Your task to perform on an android device: uninstall "Messages" Image 0: 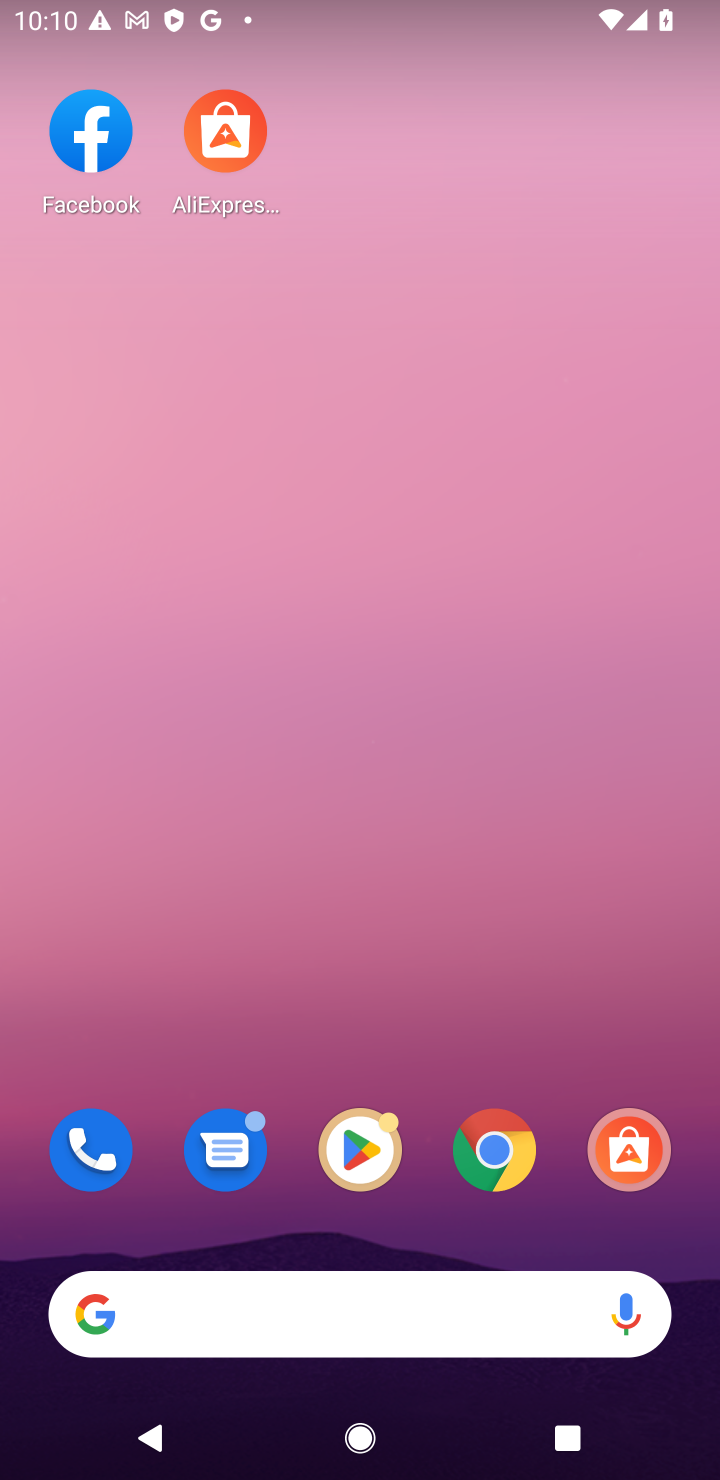
Step 0: click (374, 1146)
Your task to perform on an android device: uninstall "Messages" Image 1: 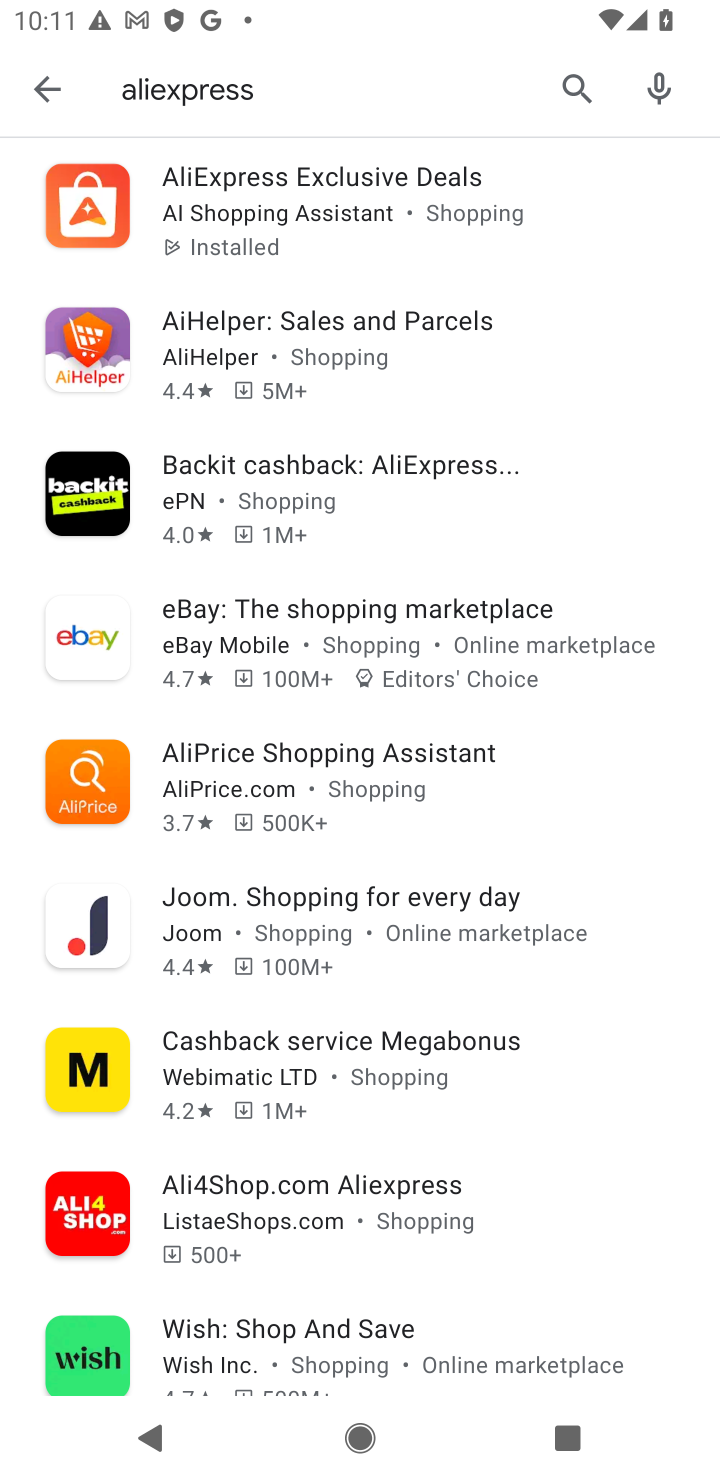
Step 1: click (561, 91)
Your task to perform on an android device: uninstall "Messages" Image 2: 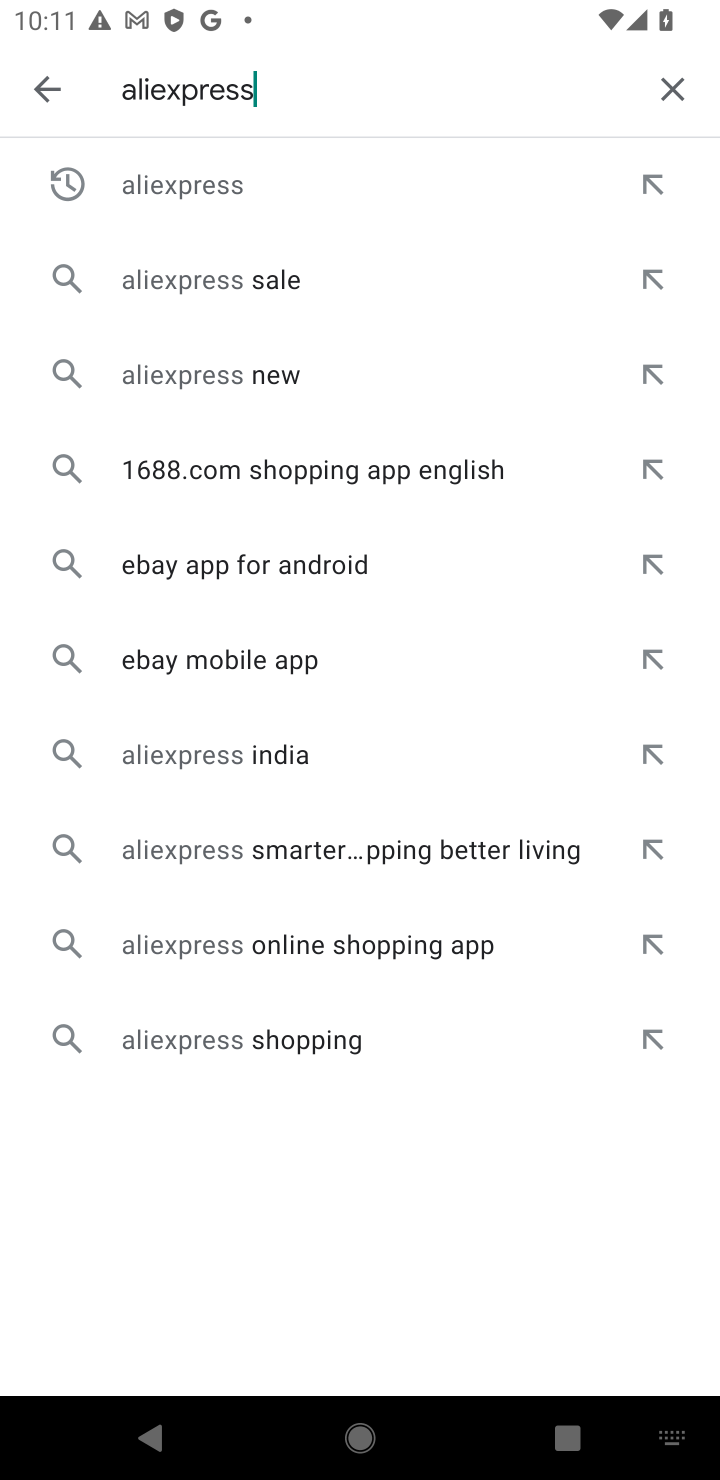
Step 2: click (666, 98)
Your task to perform on an android device: uninstall "Messages" Image 3: 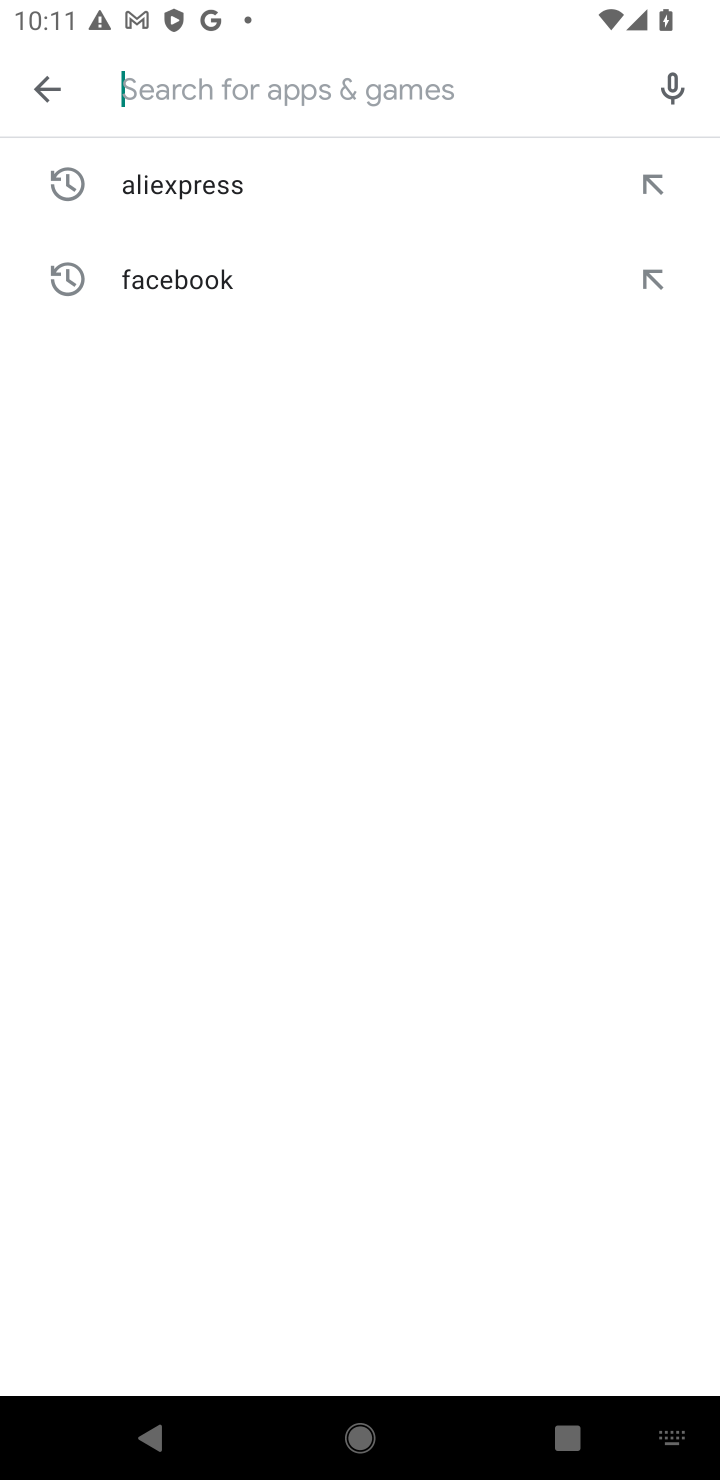
Step 3: type "Messages"
Your task to perform on an android device: uninstall "Messages" Image 4: 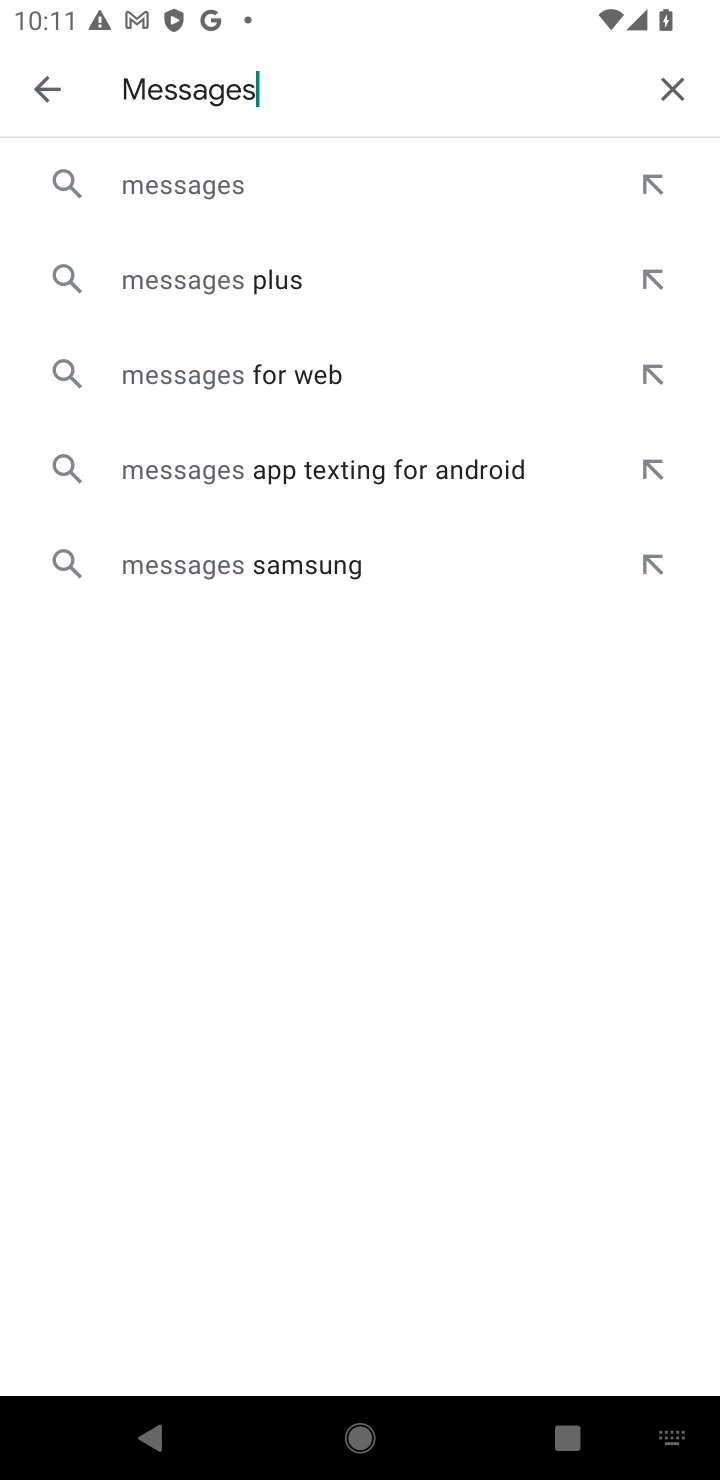
Step 4: click (242, 195)
Your task to perform on an android device: uninstall "Messages" Image 5: 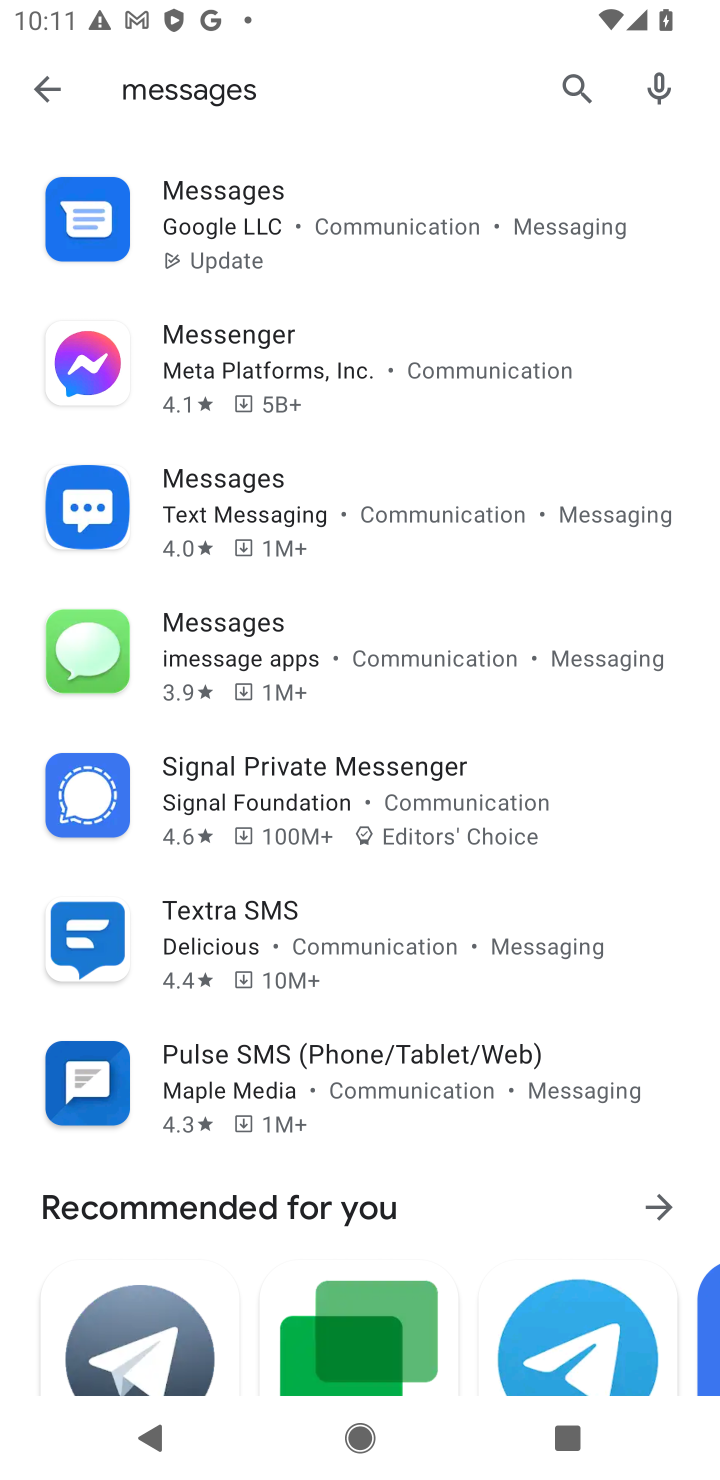
Step 5: click (242, 195)
Your task to perform on an android device: uninstall "Messages" Image 6: 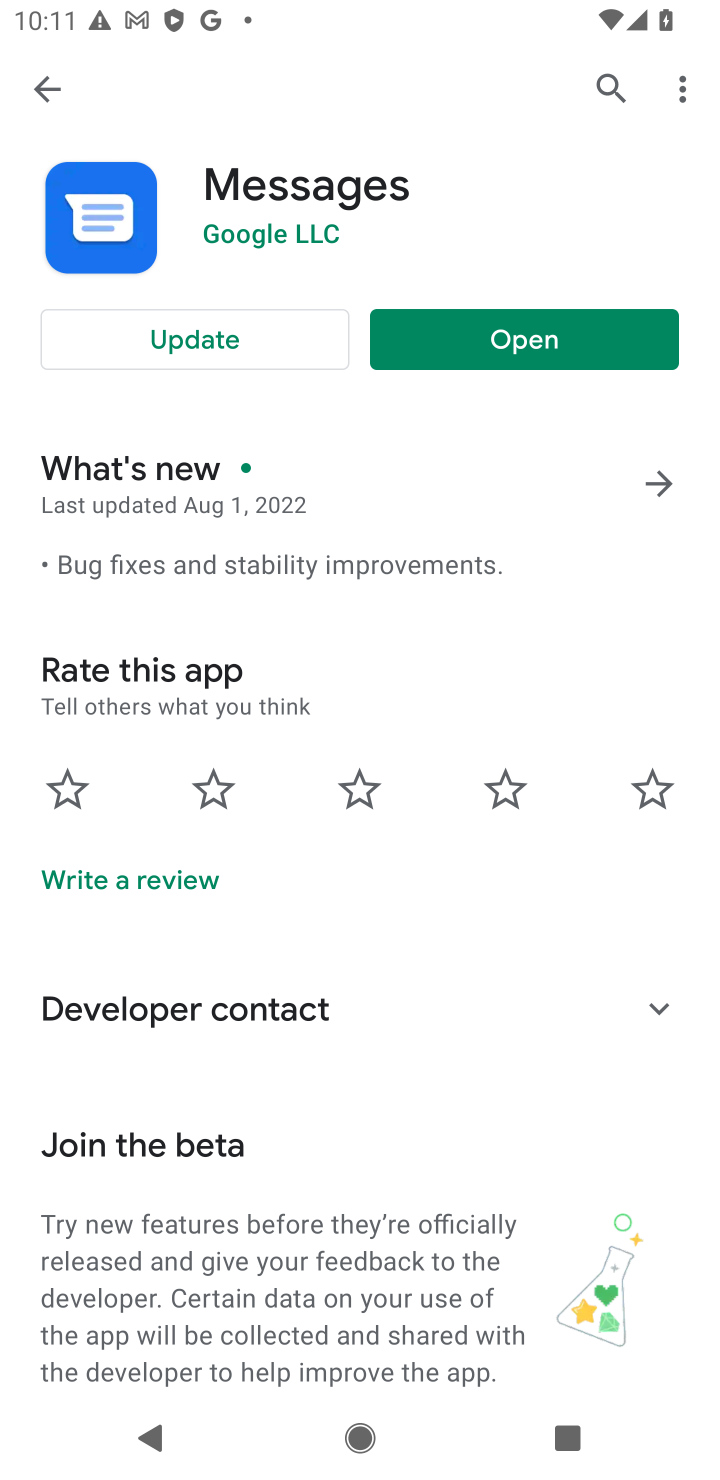
Step 6: click (163, 354)
Your task to perform on an android device: uninstall "Messages" Image 7: 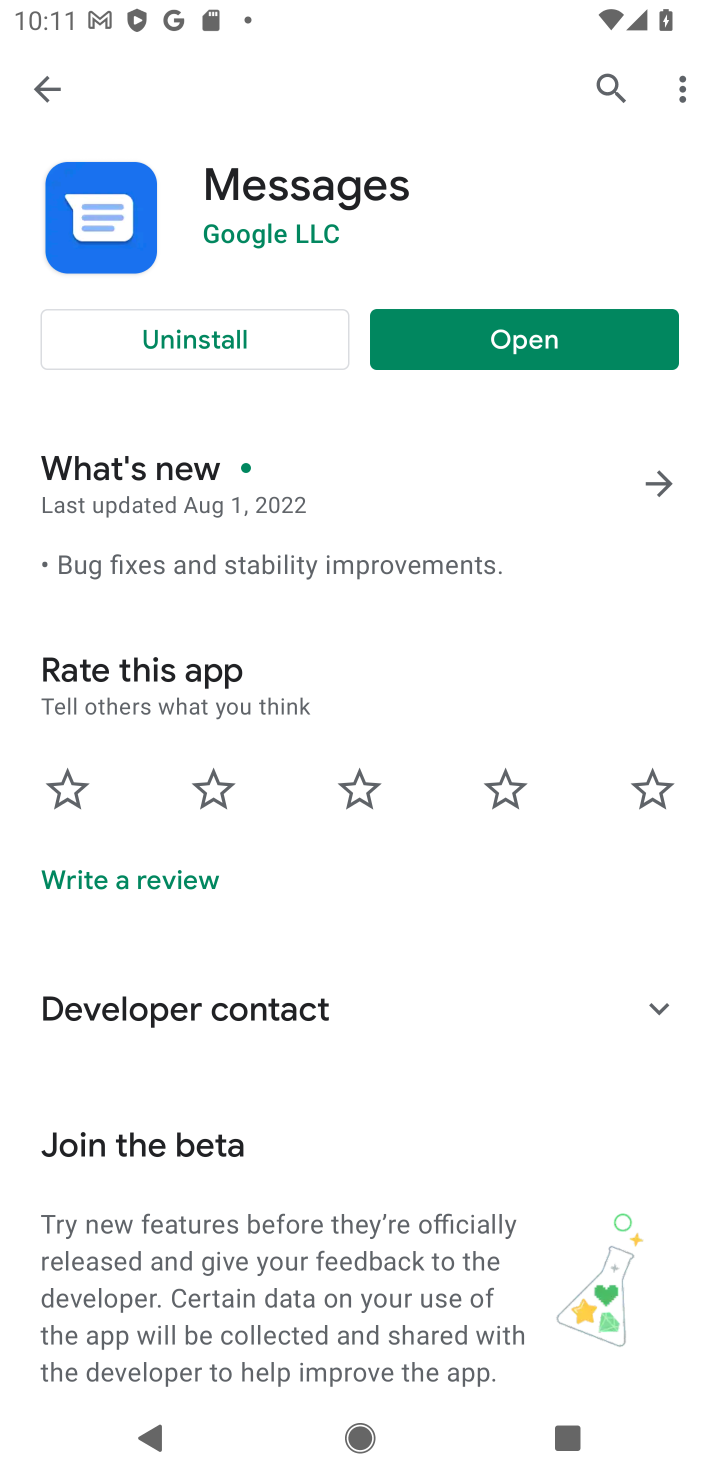
Step 7: click (163, 354)
Your task to perform on an android device: uninstall "Messages" Image 8: 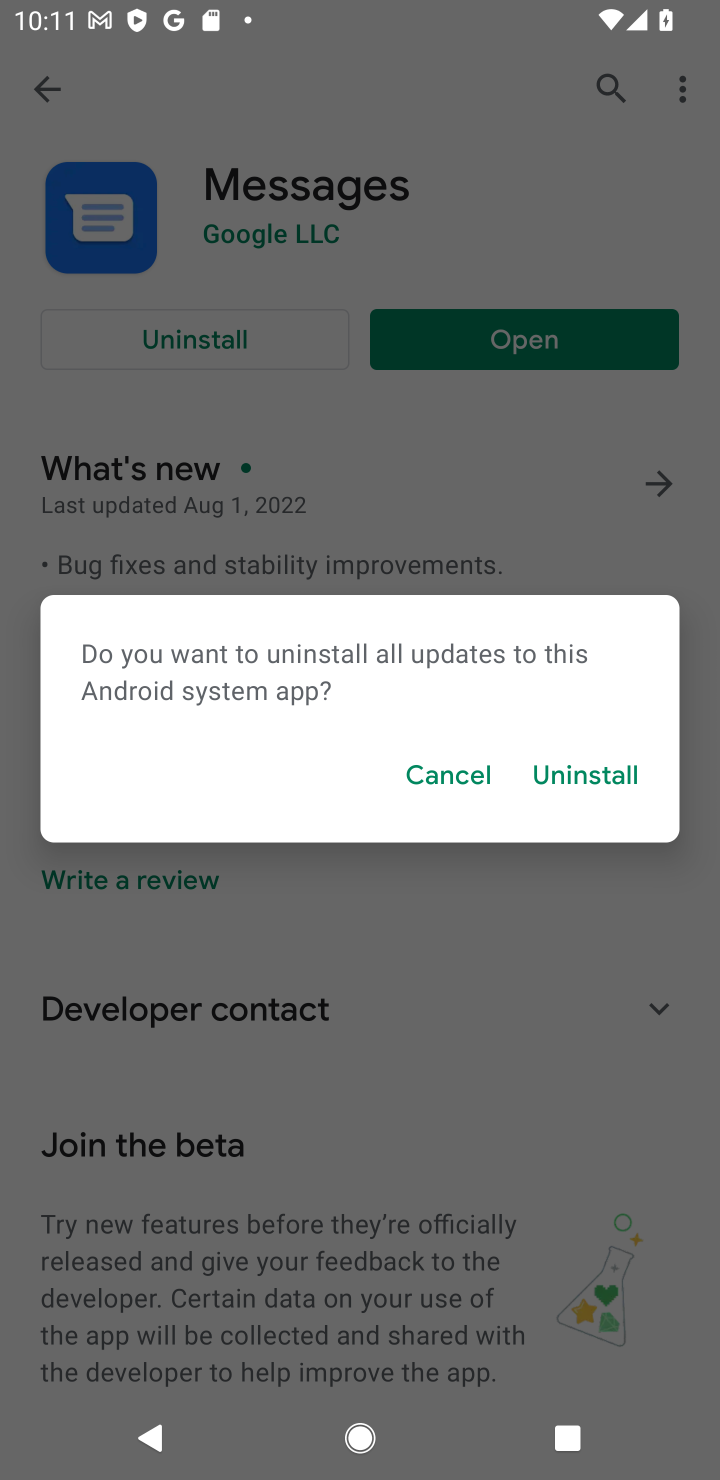
Step 8: click (620, 786)
Your task to perform on an android device: uninstall "Messages" Image 9: 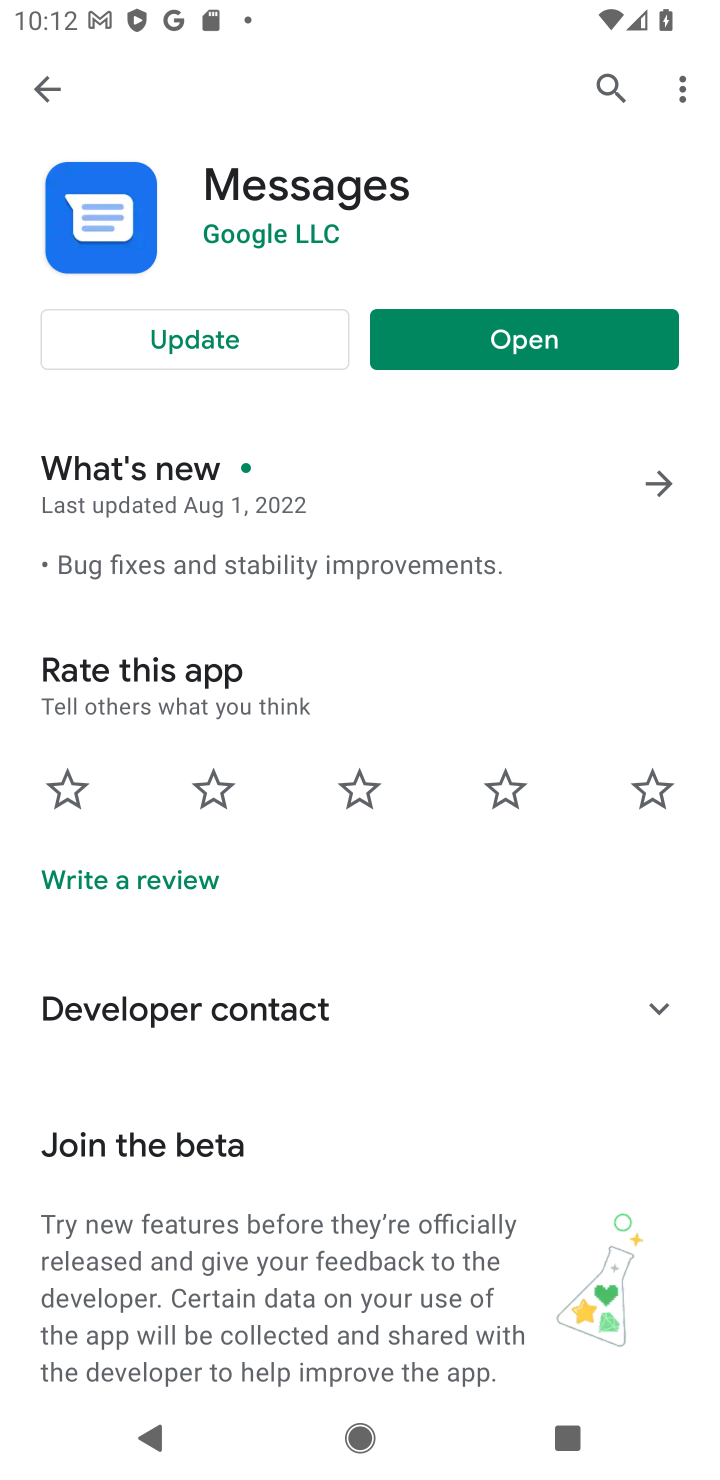
Step 9: click (233, 351)
Your task to perform on an android device: uninstall "Messages" Image 10: 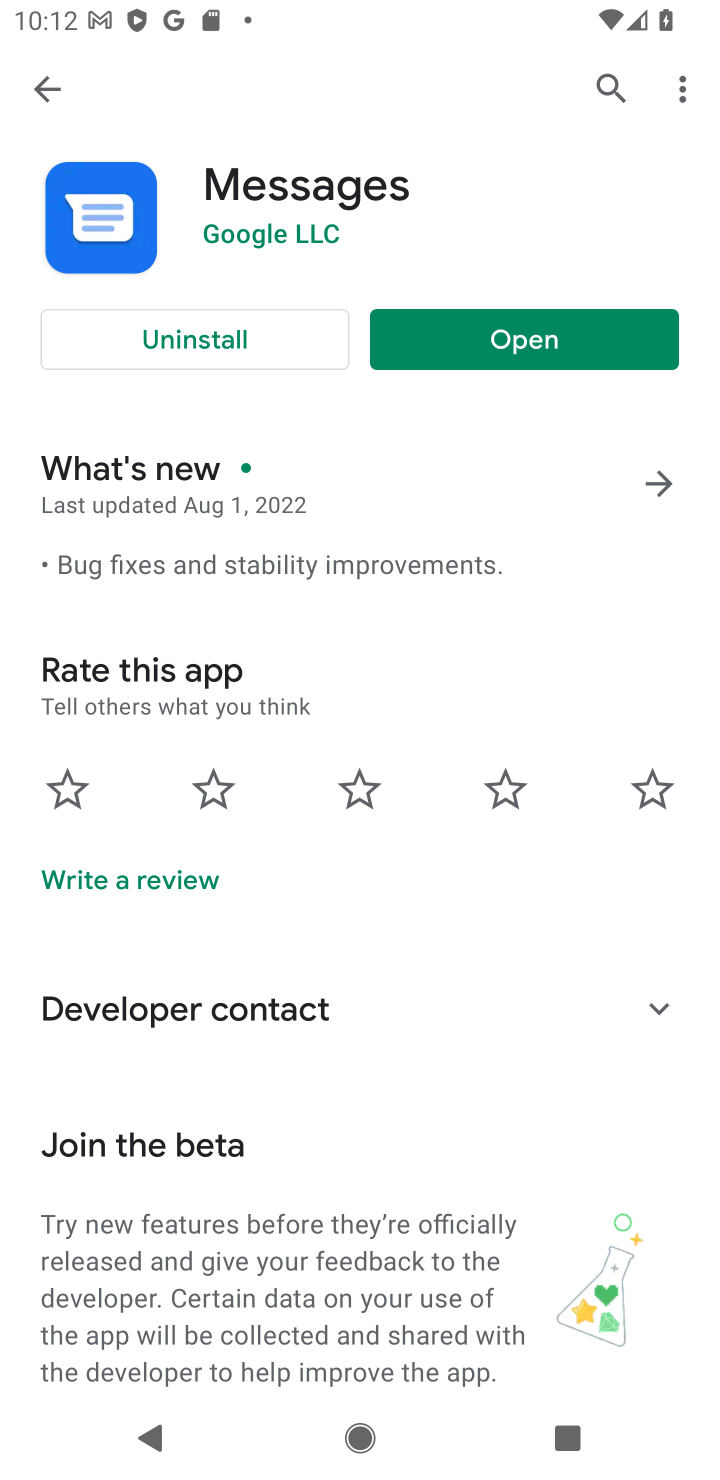
Step 10: click (242, 337)
Your task to perform on an android device: uninstall "Messages" Image 11: 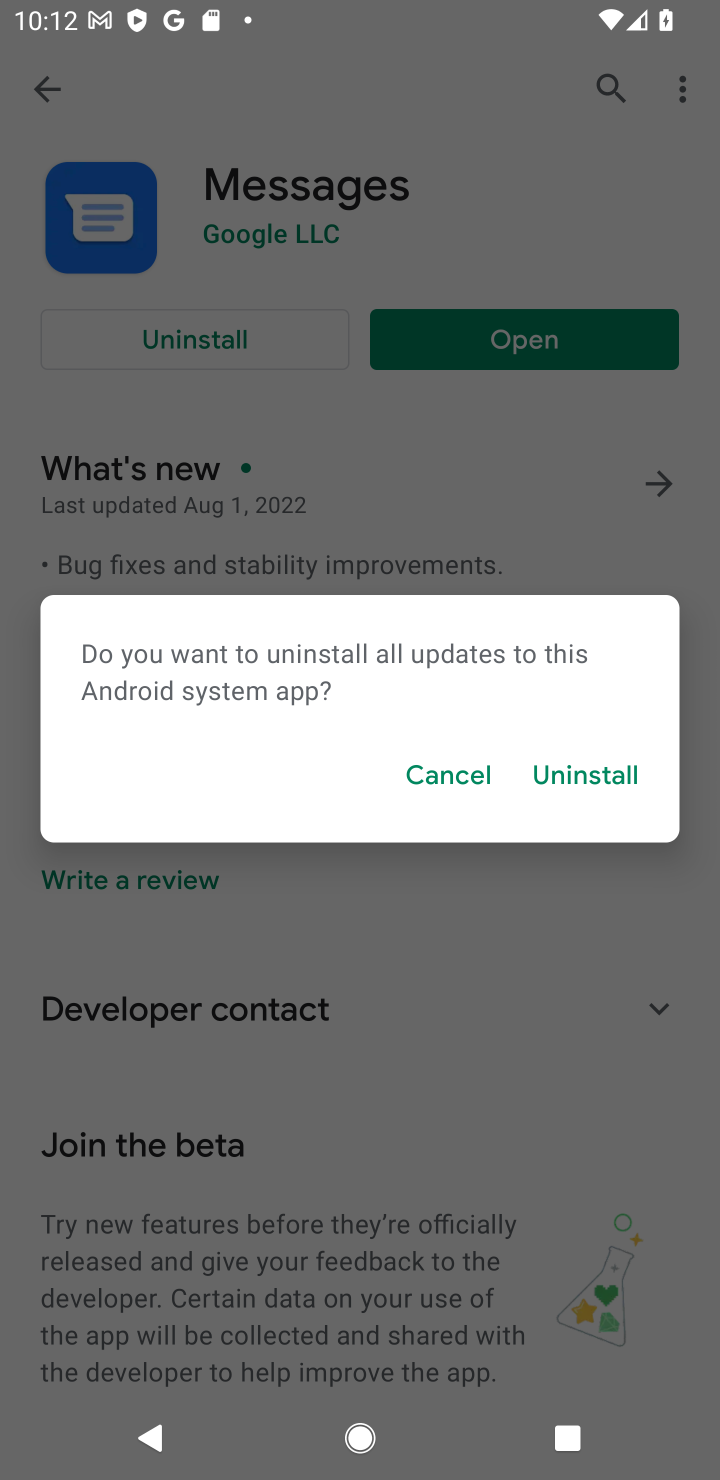
Step 11: click (563, 769)
Your task to perform on an android device: uninstall "Messages" Image 12: 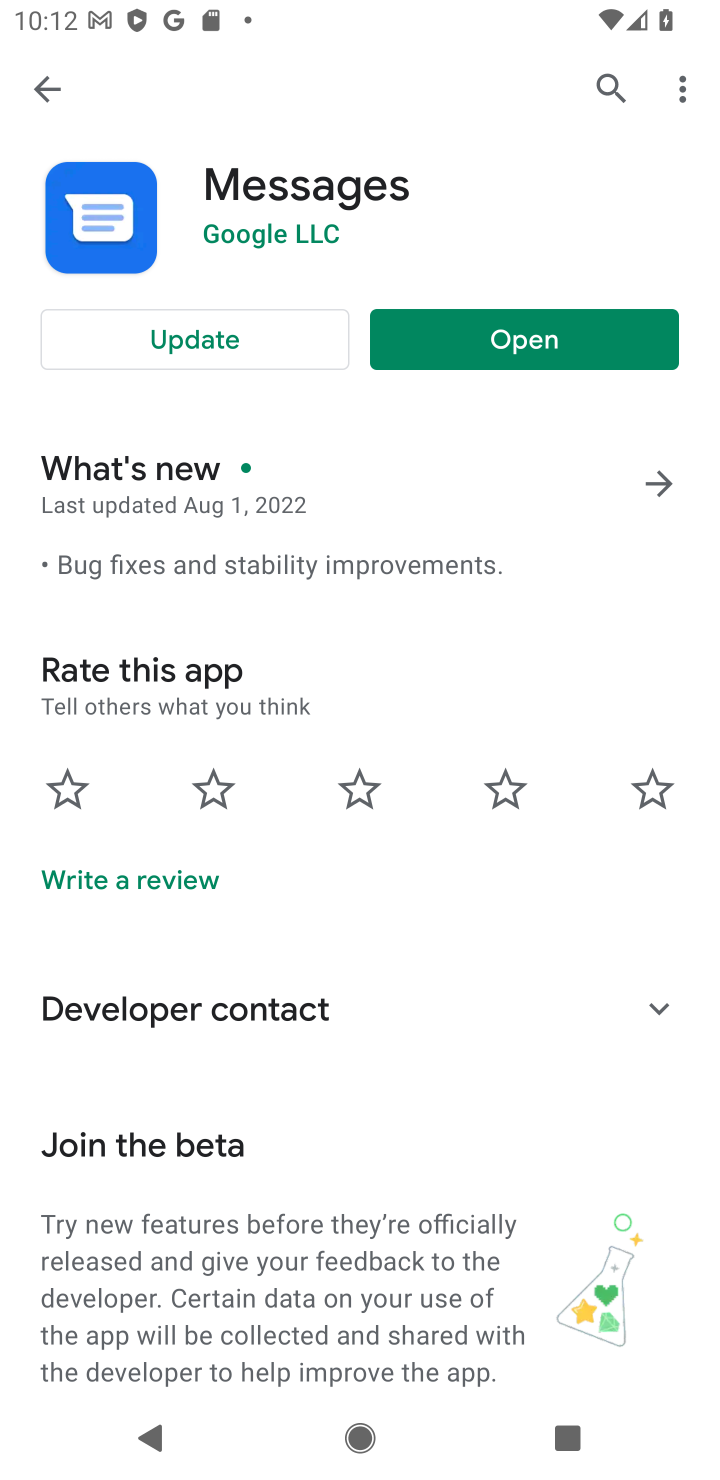
Step 12: task complete